Your task to perform on an android device: Search for Mexican restaurants on Maps Image 0: 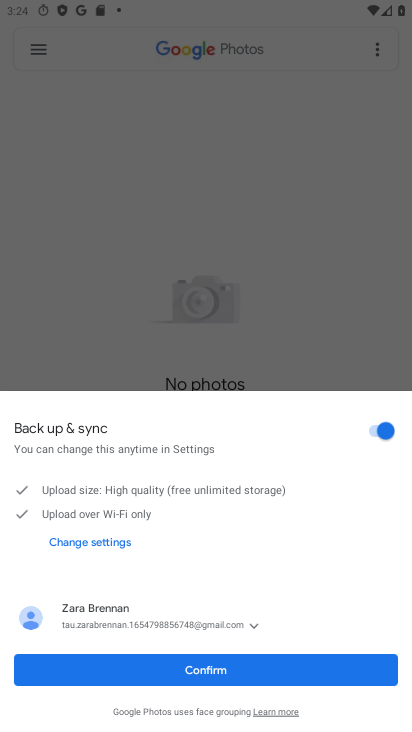
Step 0: press home button
Your task to perform on an android device: Search for Mexican restaurants on Maps Image 1: 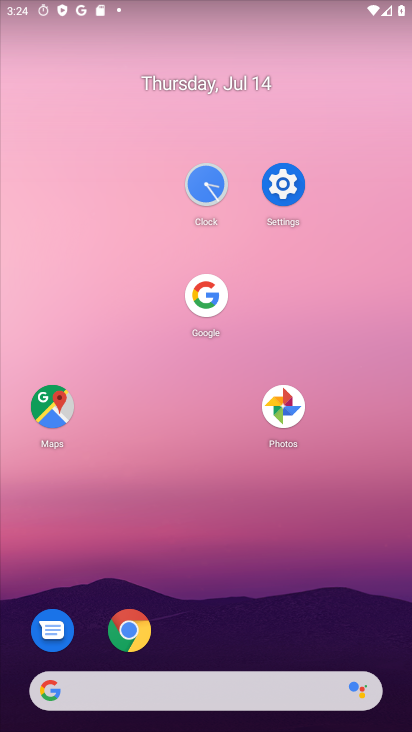
Step 1: click (56, 399)
Your task to perform on an android device: Search for Mexican restaurants on Maps Image 2: 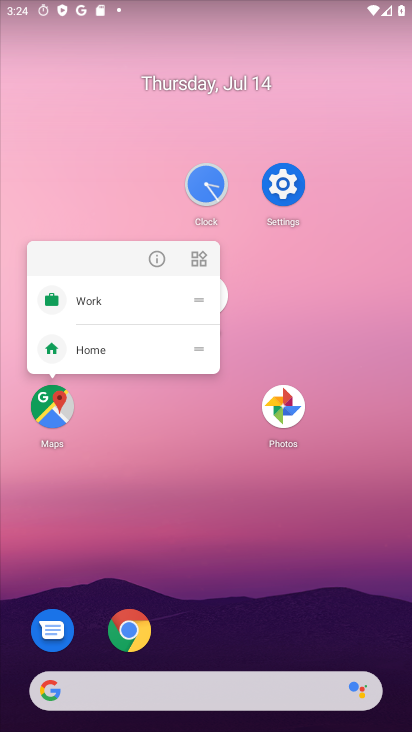
Step 2: click (52, 397)
Your task to perform on an android device: Search for Mexican restaurants on Maps Image 3: 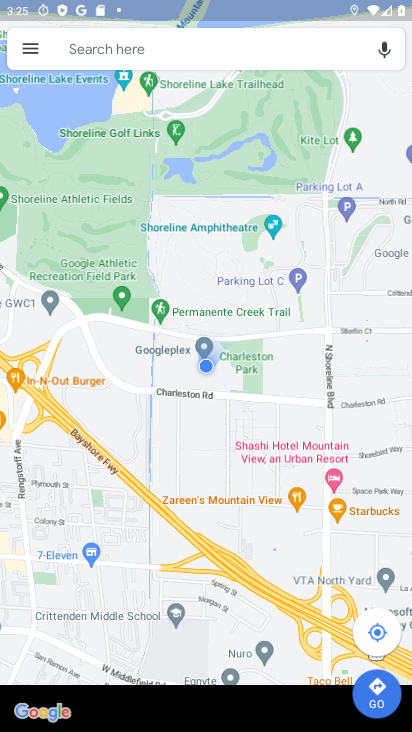
Step 3: click (261, 56)
Your task to perform on an android device: Search for Mexican restaurants on Maps Image 4: 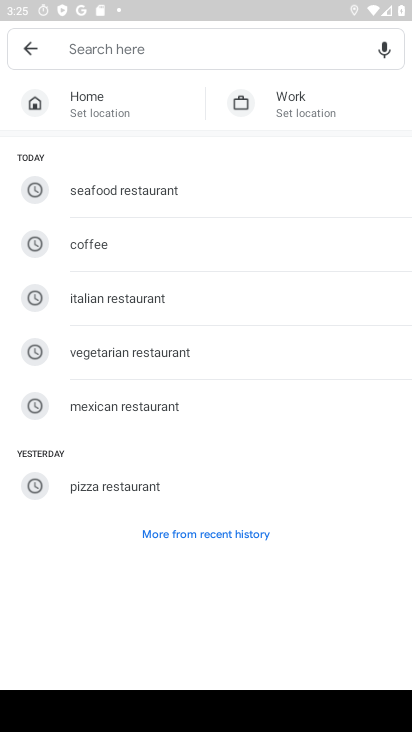
Step 4: click (207, 402)
Your task to perform on an android device: Search for Mexican restaurants on Maps Image 5: 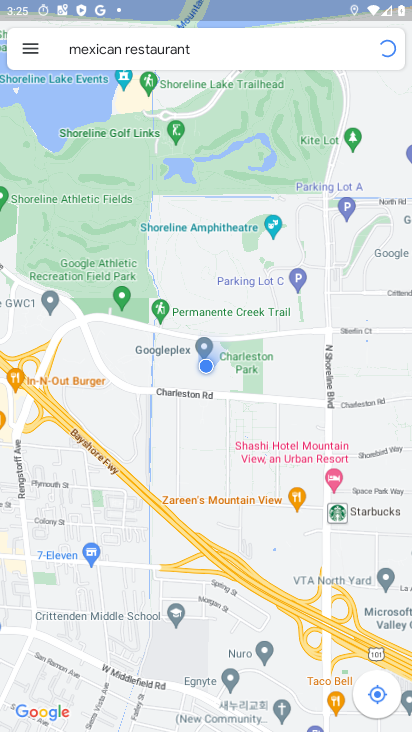
Step 5: task complete